Your task to perform on an android device: check google app version Image 0: 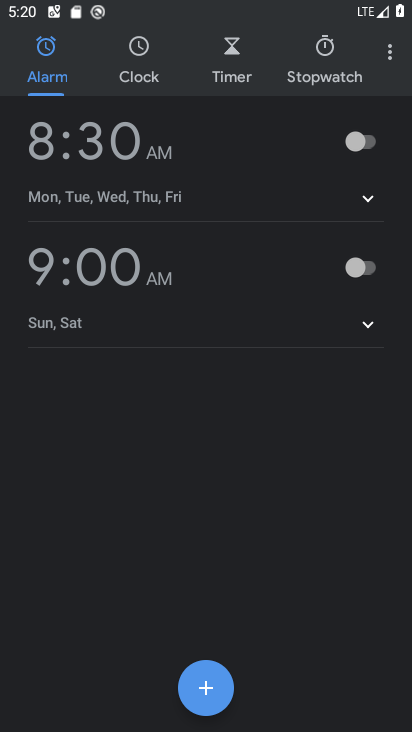
Step 0: press home button
Your task to perform on an android device: check google app version Image 1: 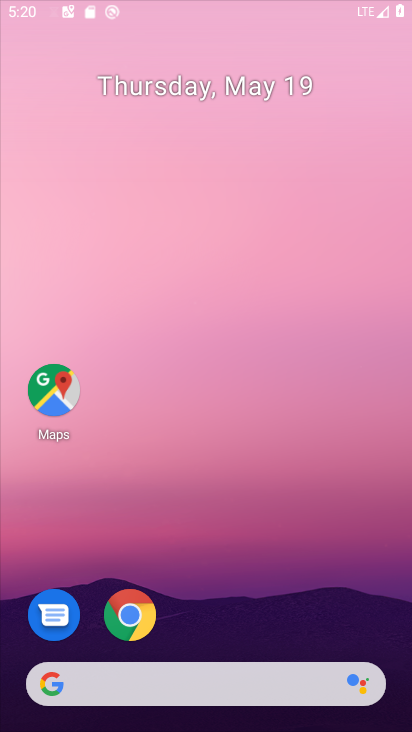
Step 1: drag from (307, 677) to (344, 18)
Your task to perform on an android device: check google app version Image 2: 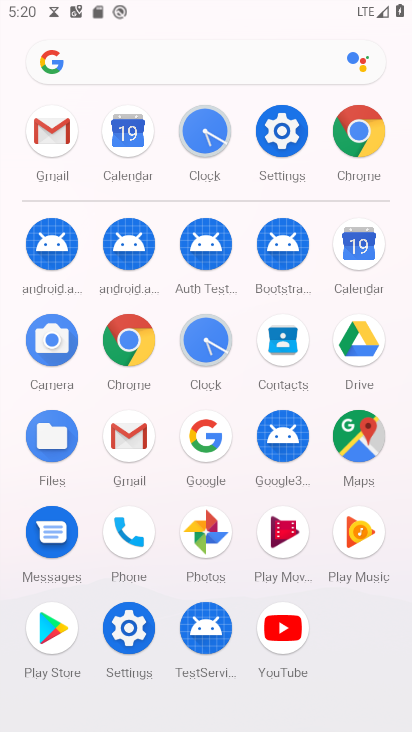
Step 2: click (134, 334)
Your task to perform on an android device: check google app version Image 3: 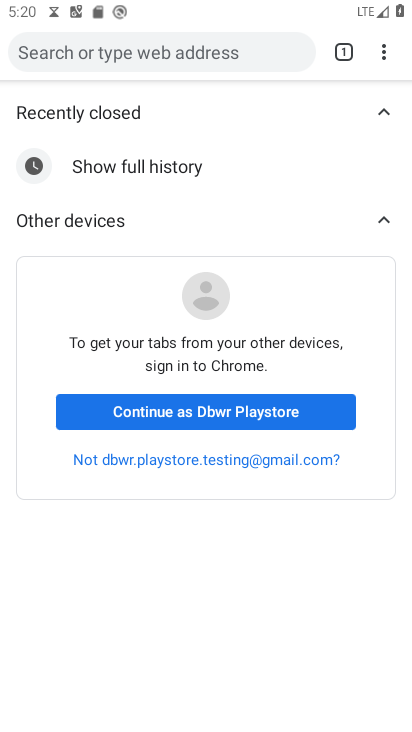
Step 3: click (391, 50)
Your task to perform on an android device: check google app version Image 4: 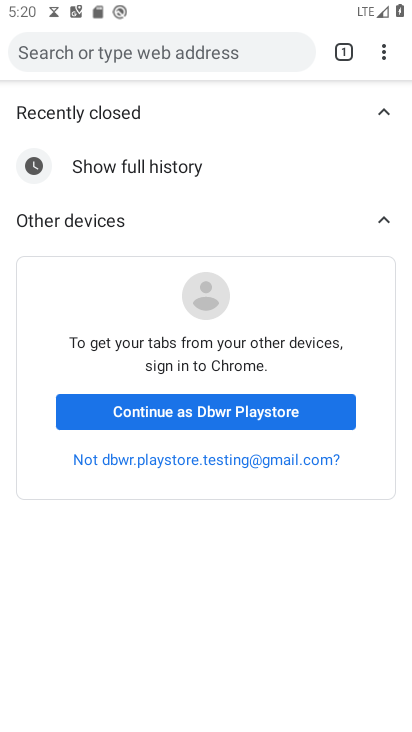
Step 4: drag from (383, 49) to (268, 417)
Your task to perform on an android device: check google app version Image 5: 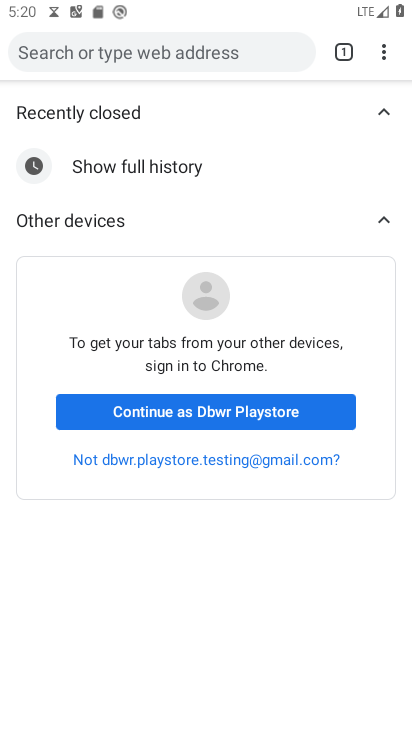
Step 5: drag from (222, 461) to (254, 418)
Your task to perform on an android device: check google app version Image 6: 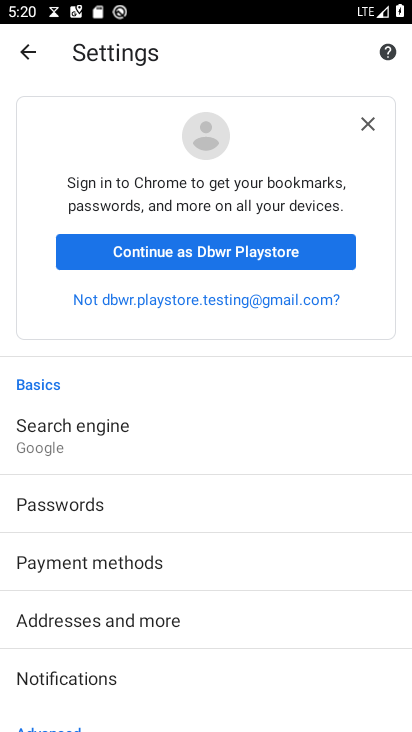
Step 6: press back button
Your task to perform on an android device: check google app version Image 7: 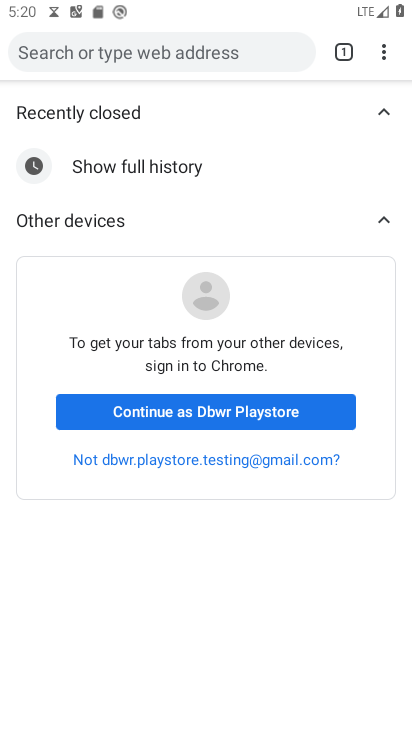
Step 7: drag from (387, 50) to (235, 486)
Your task to perform on an android device: check google app version Image 8: 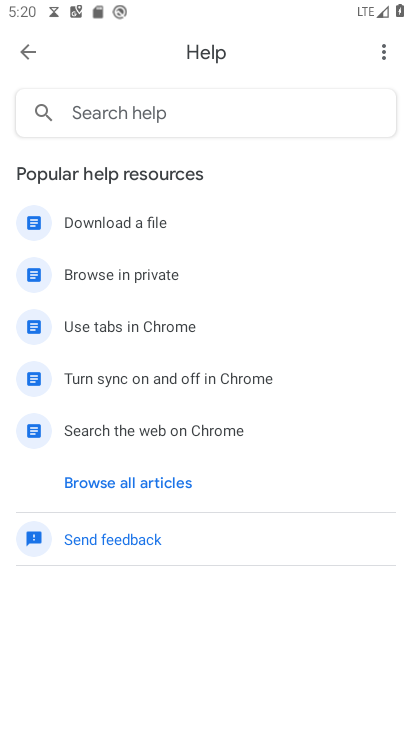
Step 8: click (380, 53)
Your task to perform on an android device: check google app version Image 9: 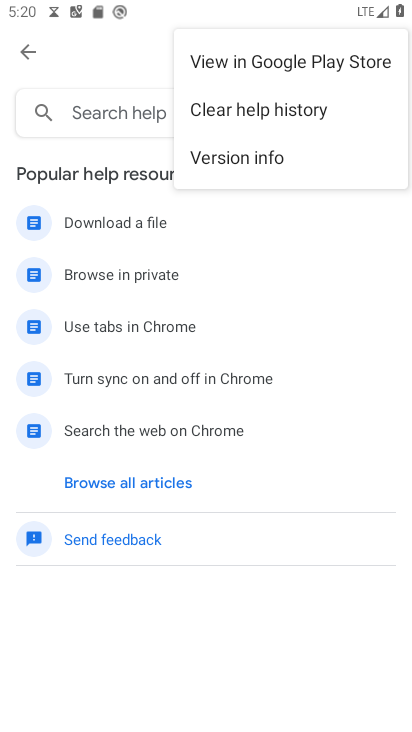
Step 9: click (295, 167)
Your task to perform on an android device: check google app version Image 10: 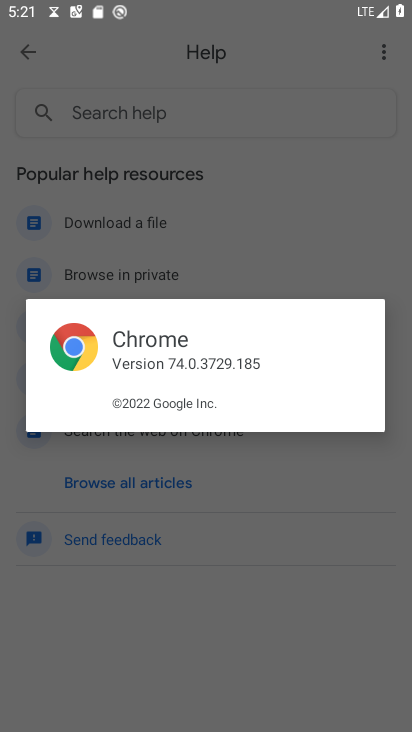
Step 10: task complete